Your task to perform on an android device: toggle sleep mode Image 0: 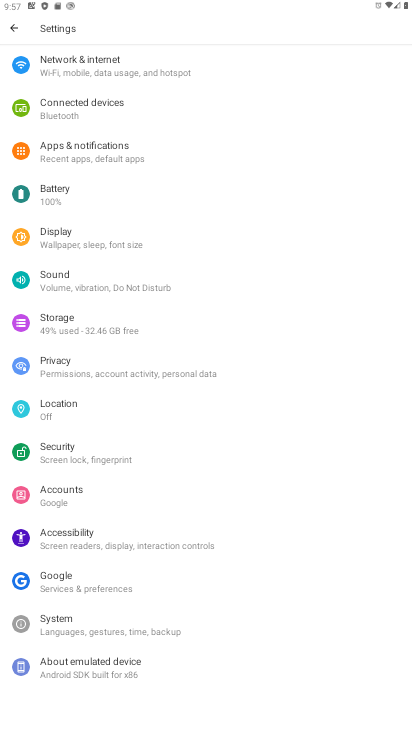
Step 0: task impossible